Your task to perform on an android device: turn on the 24-hour format for clock Image 0: 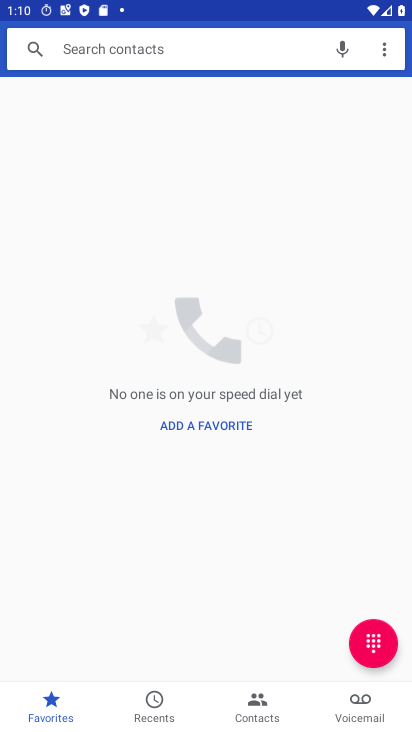
Step 0: press home button
Your task to perform on an android device: turn on the 24-hour format for clock Image 1: 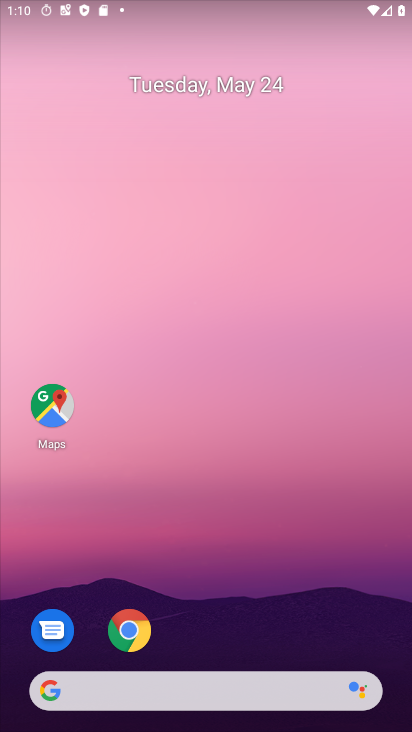
Step 1: drag from (253, 456) to (236, 19)
Your task to perform on an android device: turn on the 24-hour format for clock Image 2: 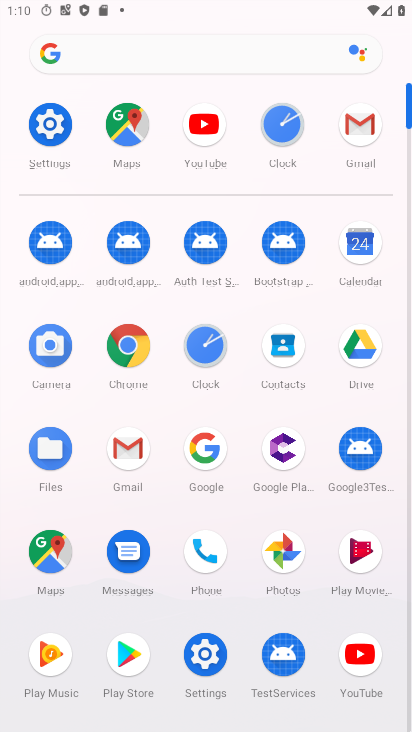
Step 2: click (277, 126)
Your task to perform on an android device: turn on the 24-hour format for clock Image 3: 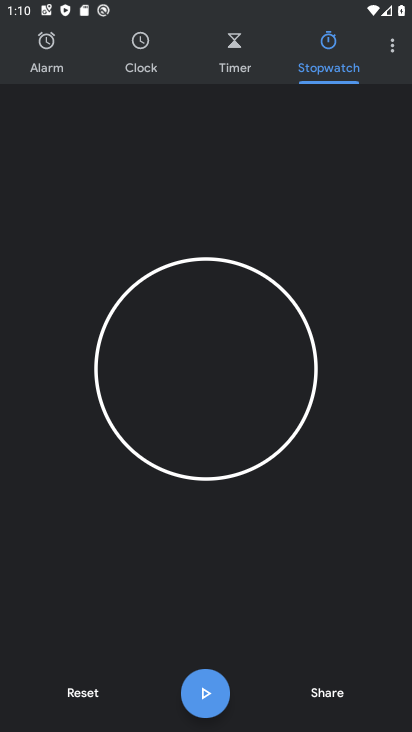
Step 3: click (394, 50)
Your task to perform on an android device: turn on the 24-hour format for clock Image 4: 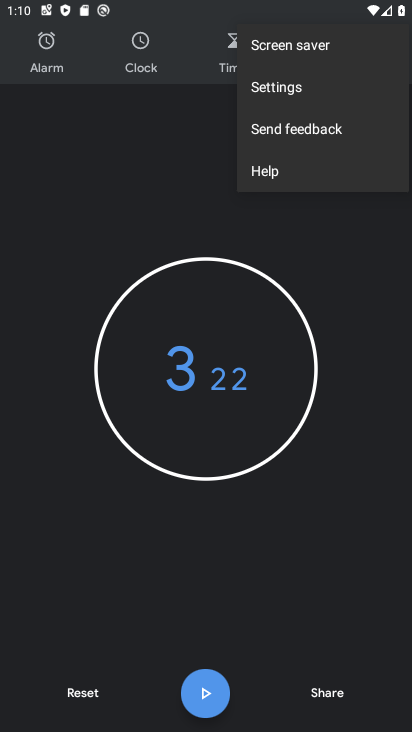
Step 4: click (280, 90)
Your task to perform on an android device: turn on the 24-hour format for clock Image 5: 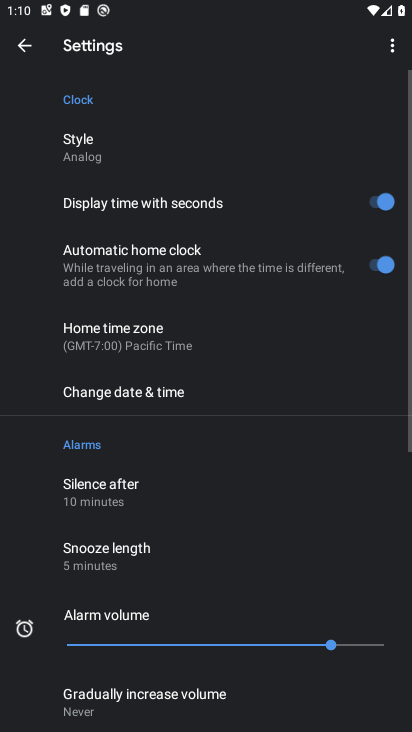
Step 5: click (149, 396)
Your task to perform on an android device: turn on the 24-hour format for clock Image 6: 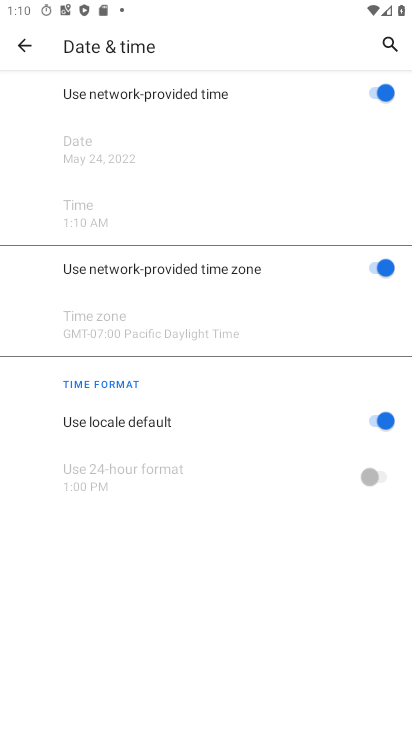
Step 6: click (372, 476)
Your task to perform on an android device: turn on the 24-hour format for clock Image 7: 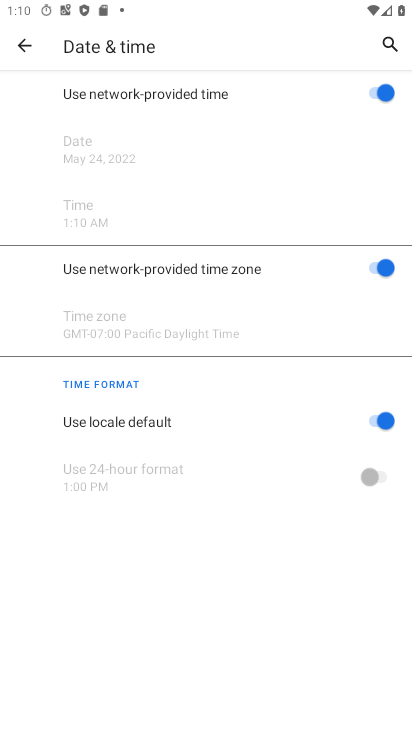
Step 7: click (385, 427)
Your task to perform on an android device: turn on the 24-hour format for clock Image 8: 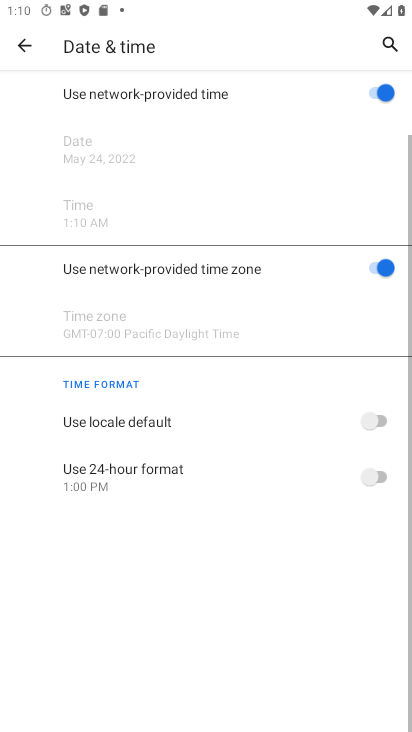
Step 8: click (370, 485)
Your task to perform on an android device: turn on the 24-hour format for clock Image 9: 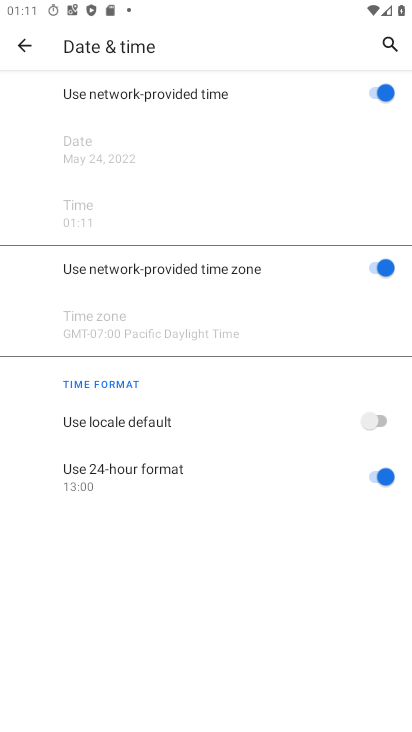
Step 9: task complete